Your task to perform on an android device: Go to battery settings Image 0: 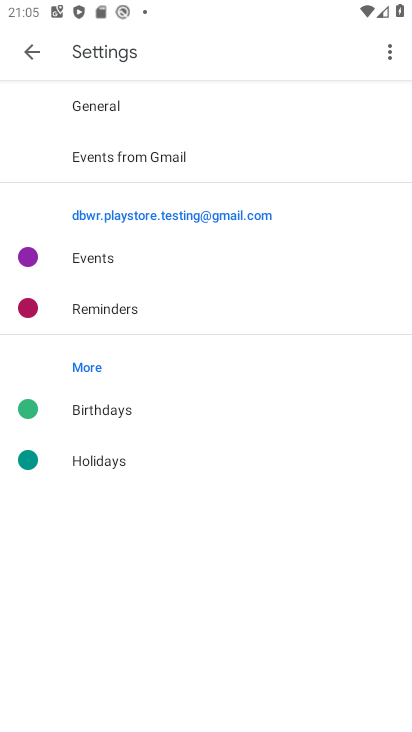
Step 0: press back button
Your task to perform on an android device: Go to battery settings Image 1: 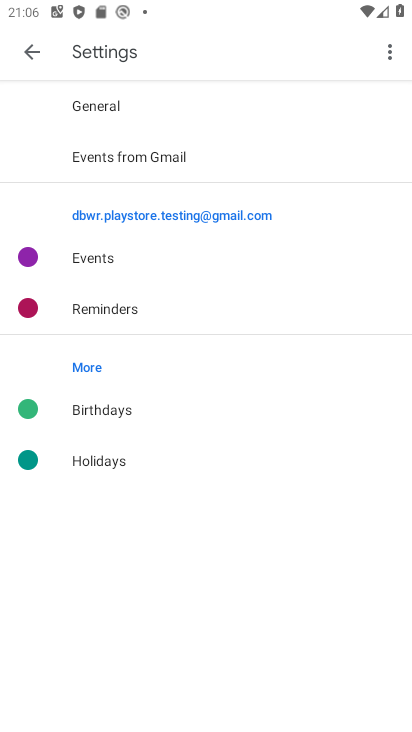
Step 1: press back button
Your task to perform on an android device: Go to battery settings Image 2: 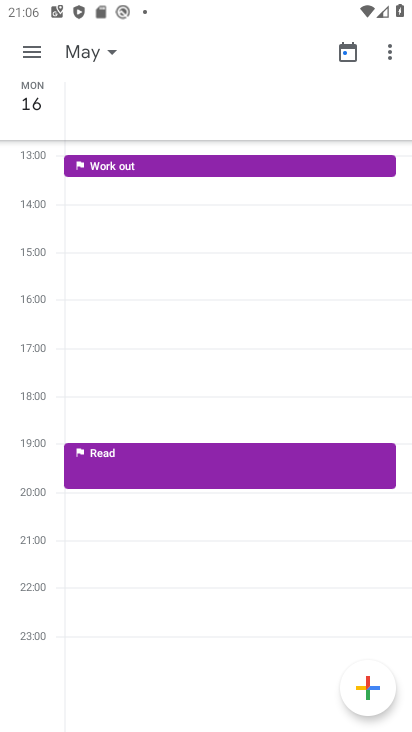
Step 2: press home button
Your task to perform on an android device: Go to battery settings Image 3: 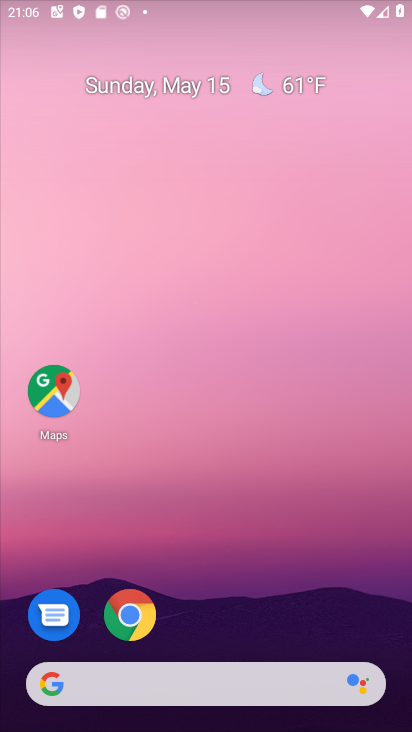
Step 3: drag from (282, 556) to (253, 8)
Your task to perform on an android device: Go to battery settings Image 4: 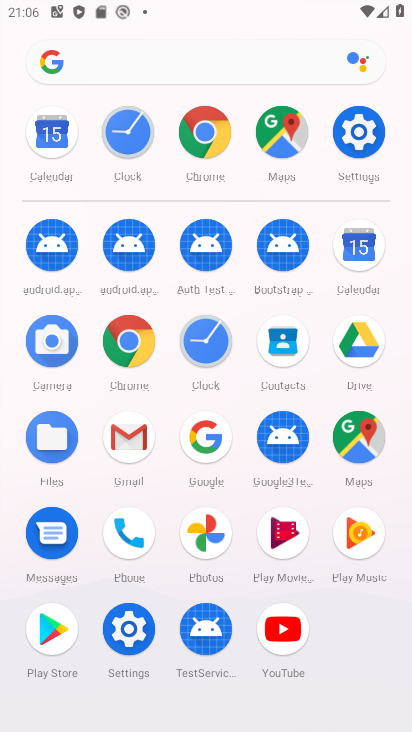
Step 4: click (128, 625)
Your task to perform on an android device: Go to battery settings Image 5: 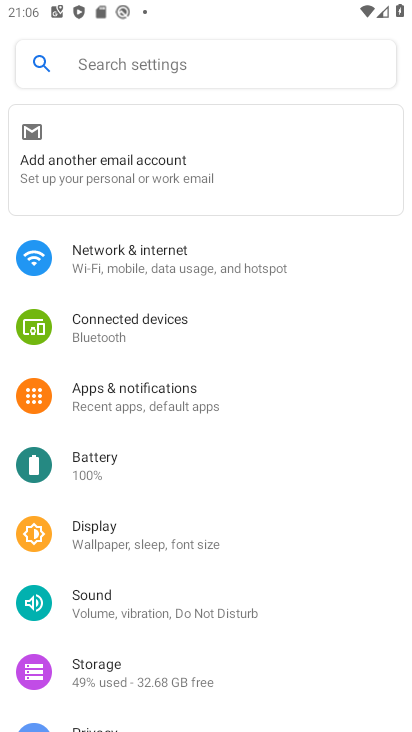
Step 5: click (125, 453)
Your task to perform on an android device: Go to battery settings Image 6: 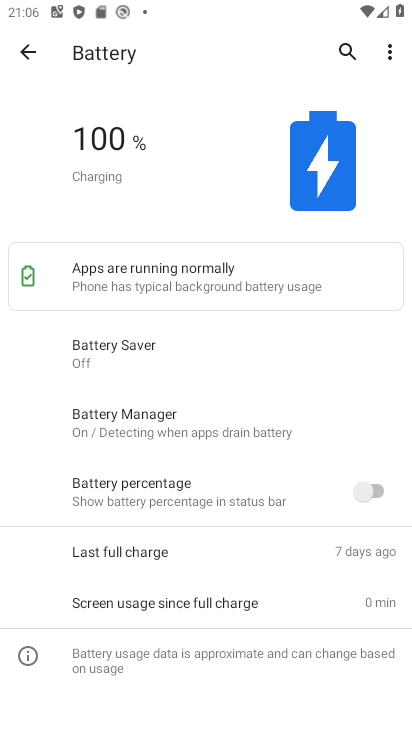
Step 6: task complete